Your task to perform on an android device: turn notification dots on Image 0: 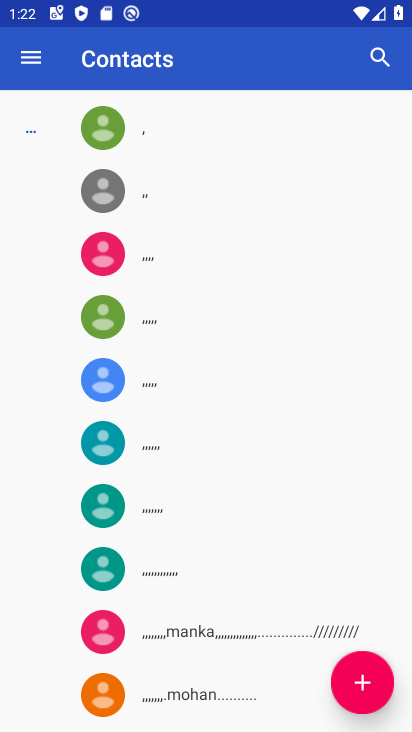
Step 0: press home button
Your task to perform on an android device: turn notification dots on Image 1: 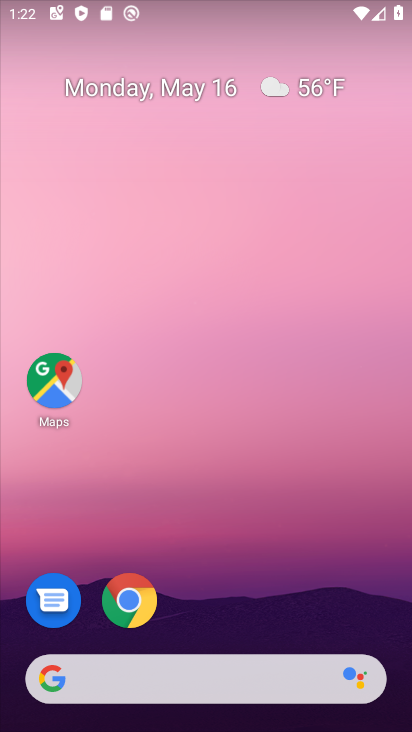
Step 1: drag from (277, 561) to (246, 152)
Your task to perform on an android device: turn notification dots on Image 2: 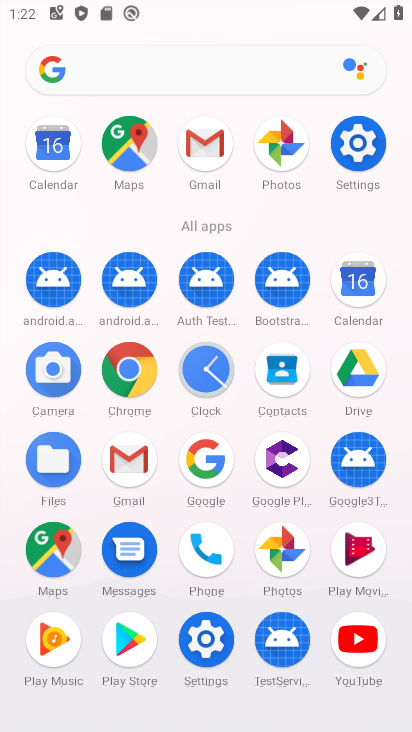
Step 2: click (216, 654)
Your task to perform on an android device: turn notification dots on Image 3: 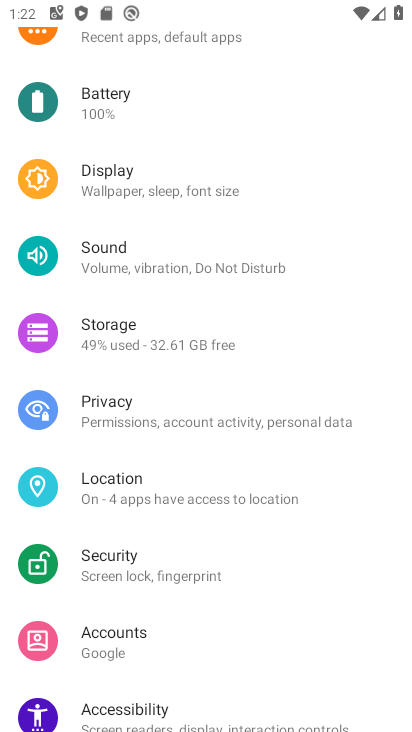
Step 3: click (168, 33)
Your task to perform on an android device: turn notification dots on Image 4: 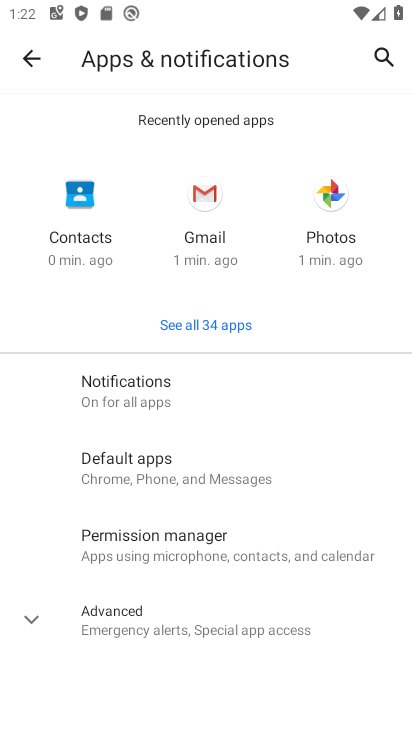
Step 4: click (165, 395)
Your task to perform on an android device: turn notification dots on Image 5: 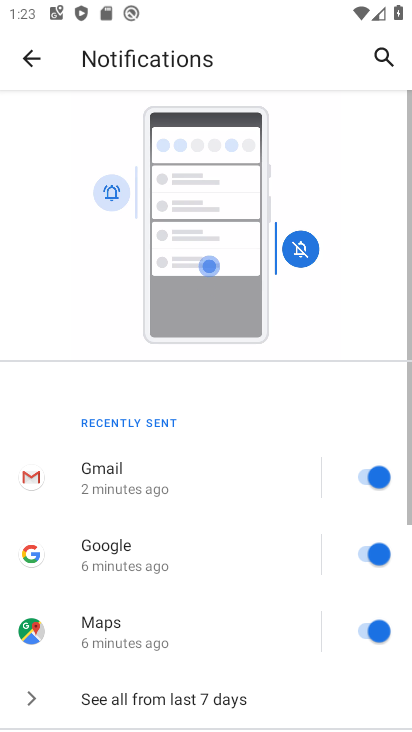
Step 5: drag from (216, 646) to (221, 141)
Your task to perform on an android device: turn notification dots on Image 6: 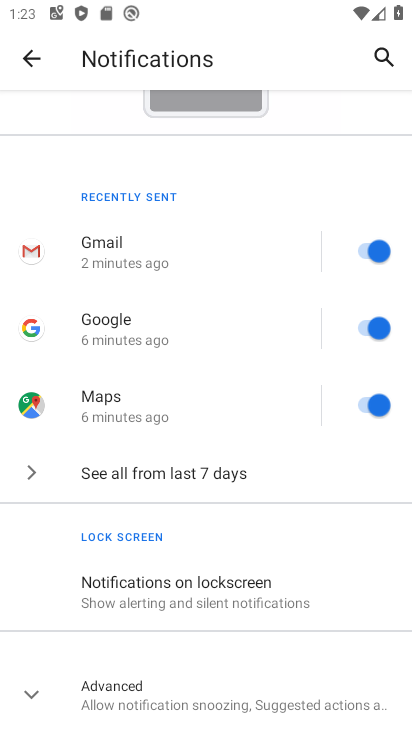
Step 6: click (164, 681)
Your task to perform on an android device: turn notification dots on Image 7: 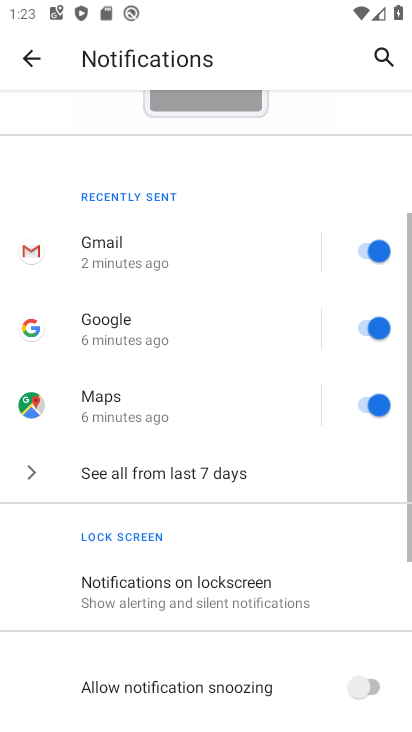
Step 7: drag from (187, 643) to (204, 251)
Your task to perform on an android device: turn notification dots on Image 8: 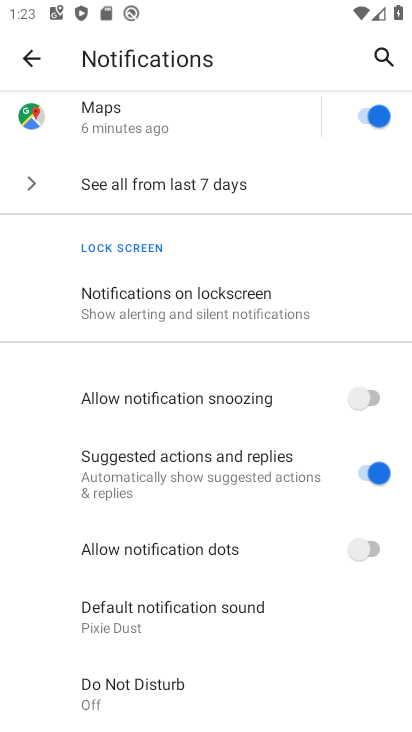
Step 8: click (376, 542)
Your task to perform on an android device: turn notification dots on Image 9: 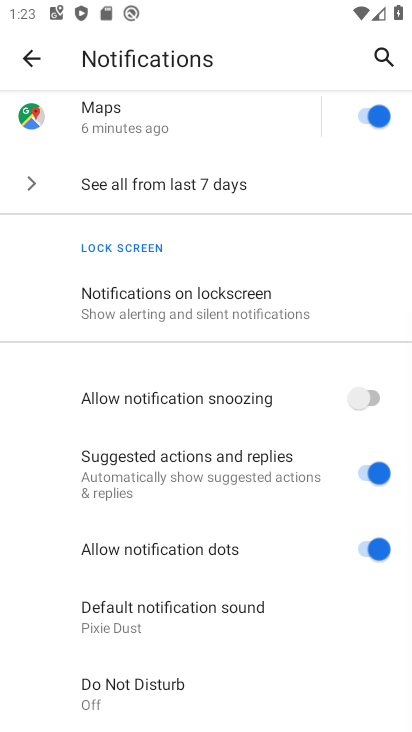
Step 9: task complete